Your task to perform on an android device: turn off location Image 0: 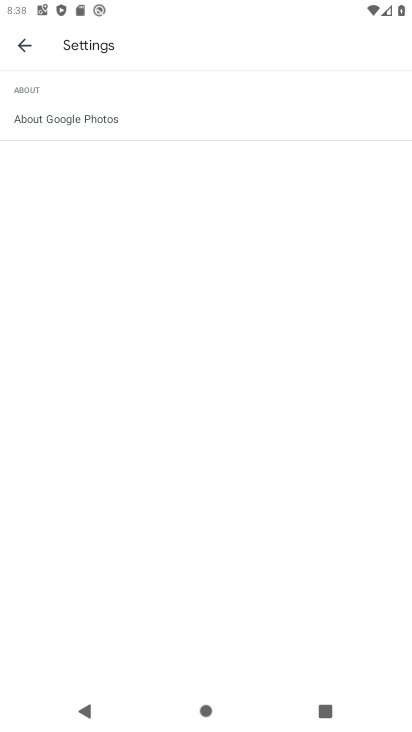
Step 0: press home button
Your task to perform on an android device: turn off location Image 1: 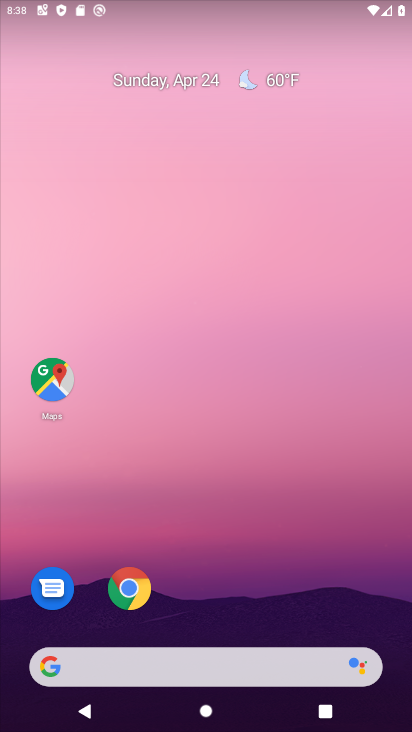
Step 1: drag from (232, 556) to (213, 61)
Your task to perform on an android device: turn off location Image 2: 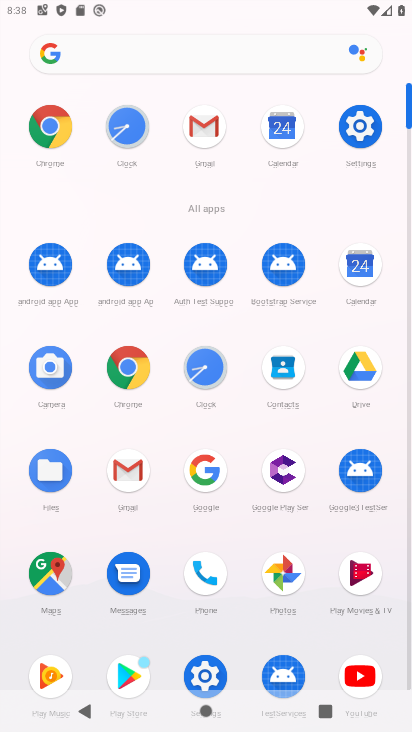
Step 2: click (361, 127)
Your task to perform on an android device: turn off location Image 3: 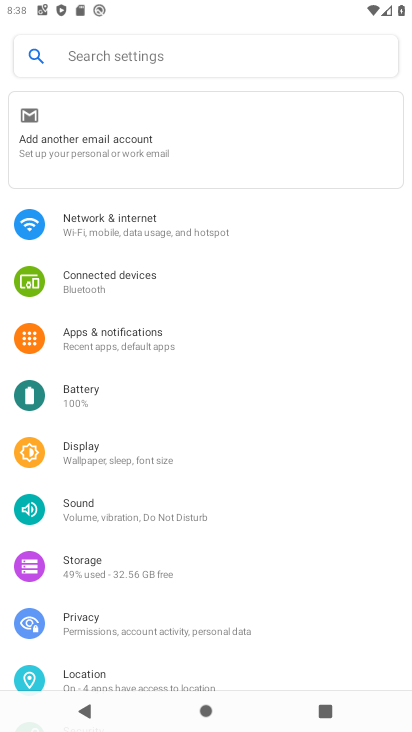
Step 3: drag from (230, 579) to (242, 503)
Your task to perform on an android device: turn off location Image 4: 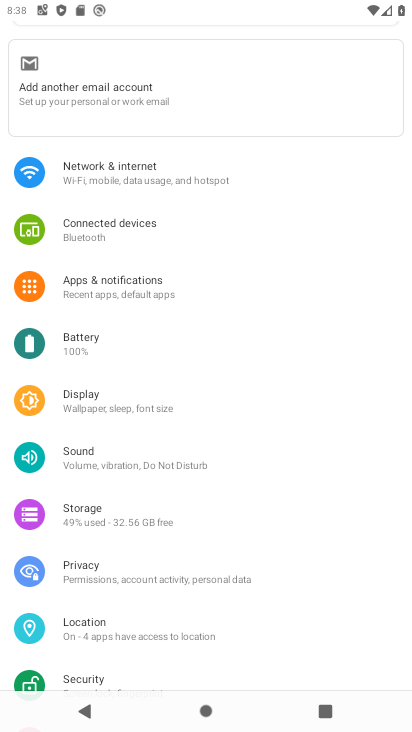
Step 4: click (113, 634)
Your task to perform on an android device: turn off location Image 5: 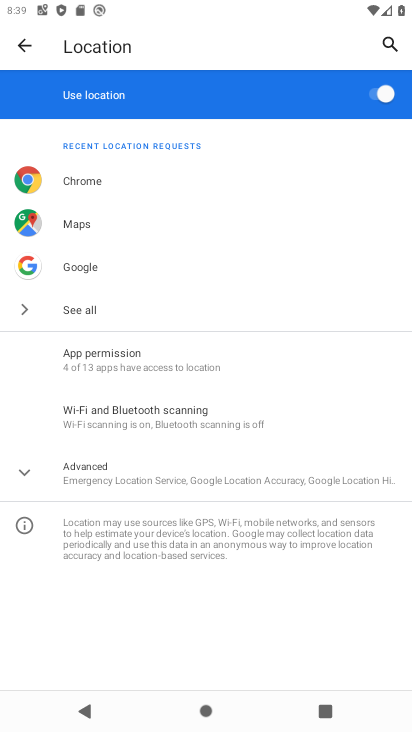
Step 5: click (386, 96)
Your task to perform on an android device: turn off location Image 6: 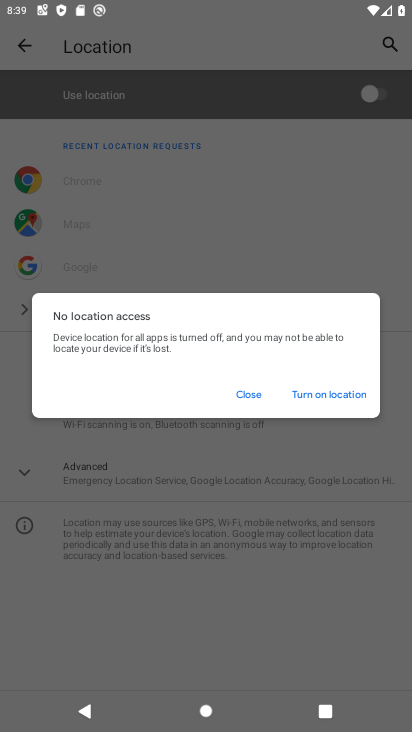
Step 6: click (244, 400)
Your task to perform on an android device: turn off location Image 7: 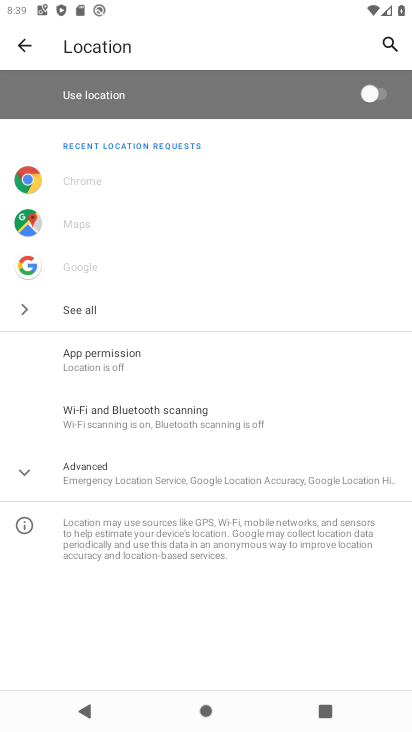
Step 7: task complete